Your task to perform on an android device: delete location history Image 0: 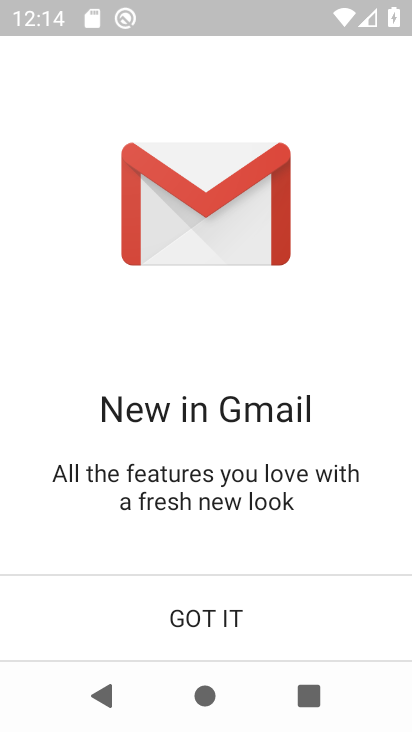
Step 0: press home button
Your task to perform on an android device: delete location history Image 1: 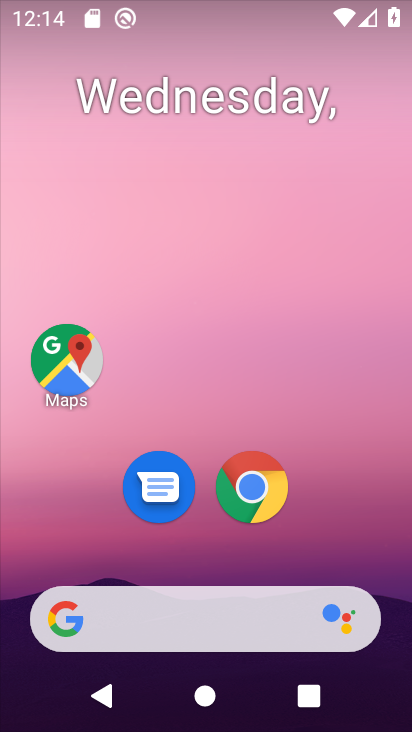
Step 1: click (67, 348)
Your task to perform on an android device: delete location history Image 2: 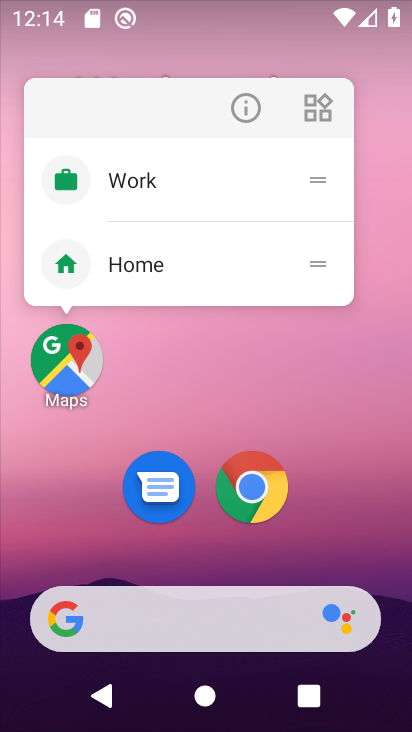
Step 2: click (75, 351)
Your task to perform on an android device: delete location history Image 3: 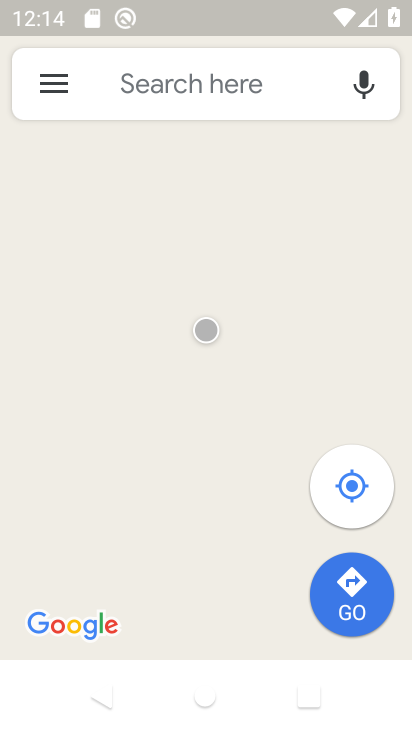
Step 3: click (36, 77)
Your task to perform on an android device: delete location history Image 4: 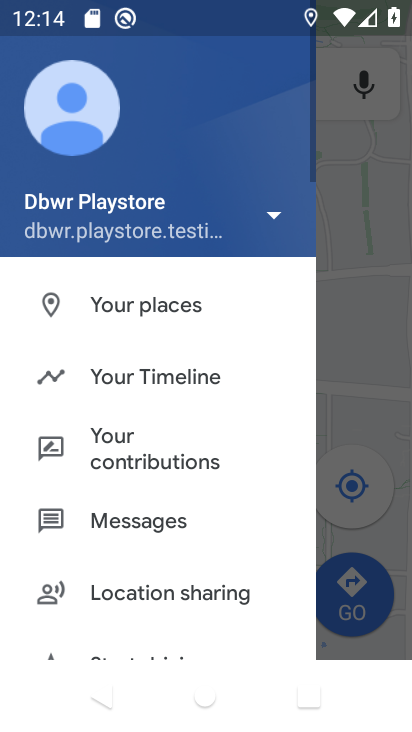
Step 4: click (172, 368)
Your task to perform on an android device: delete location history Image 5: 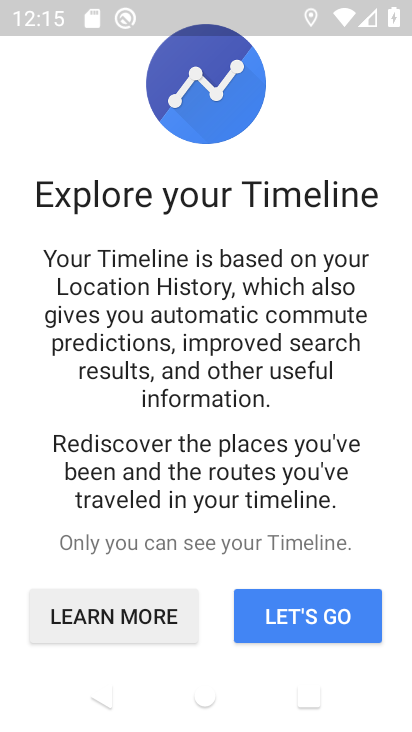
Step 5: click (303, 603)
Your task to perform on an android device: delete location history Image 6: 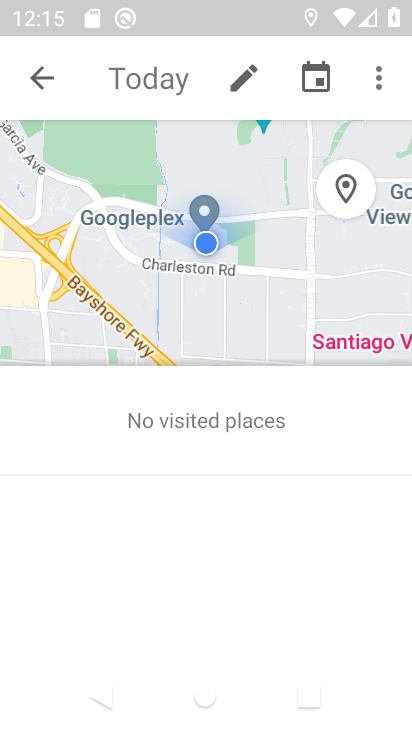
Step 6: click (379, 76)
Your task to perform on an android device: delete location history Image 7: 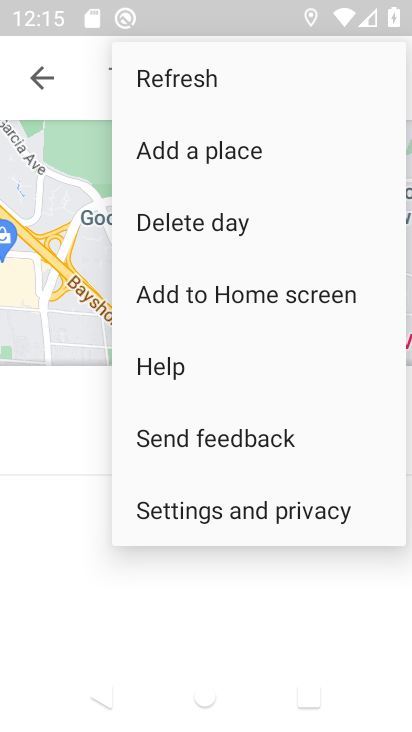
Step 7: click (293, 509)
Your task to perform on an android device: delete location history Image 8: 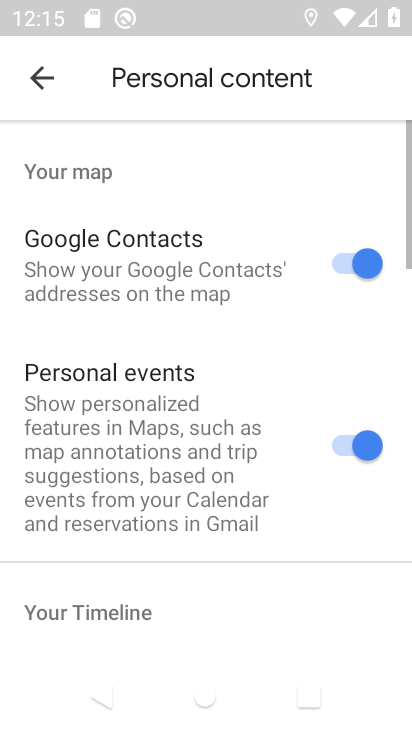
Step 8: drag from (156, 628) to (264, 6)
Your task to perform on an android device: delete location history Image 9: 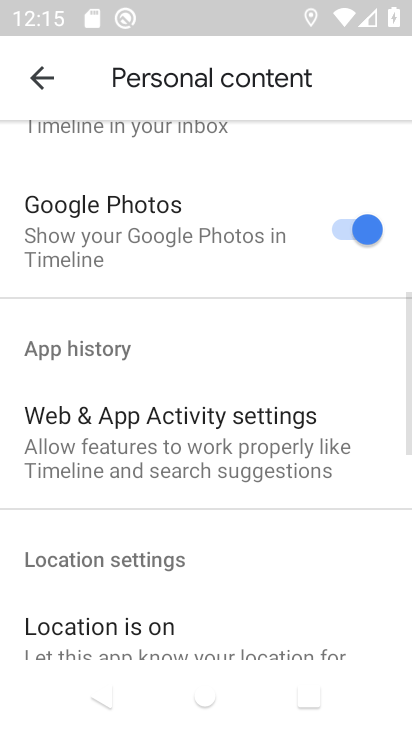
Step 9: drag from (183, 554) to (215, 84)
Your task to perform on an android device: delete location history Image 10: 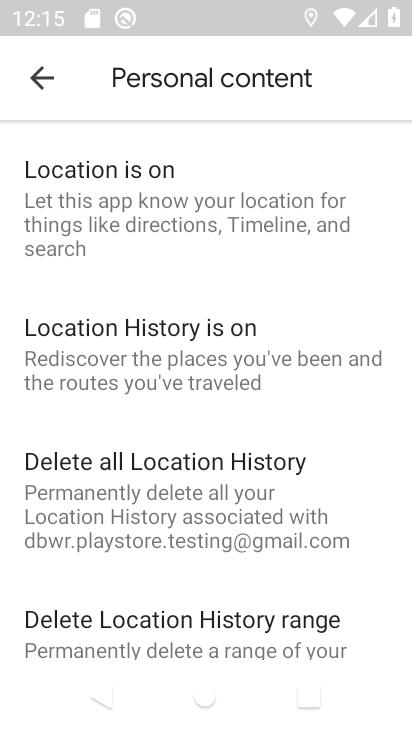
Step 10: click (118, 491)
Your task to perform on an android device: delete location history Image 11: 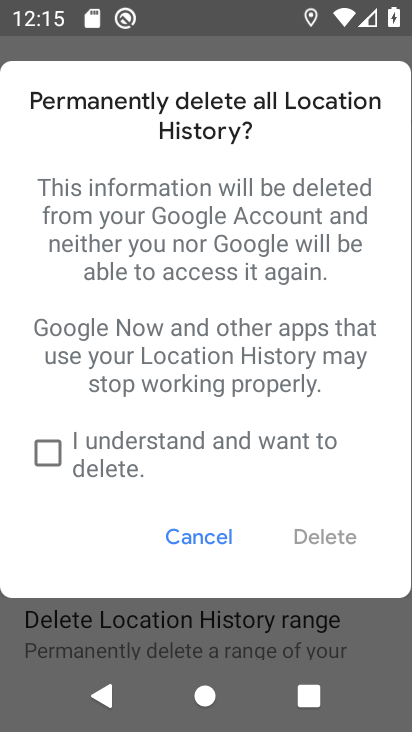
Step 11: click (49, 448)
Your task to perform on an android device: delete location history Image 12: 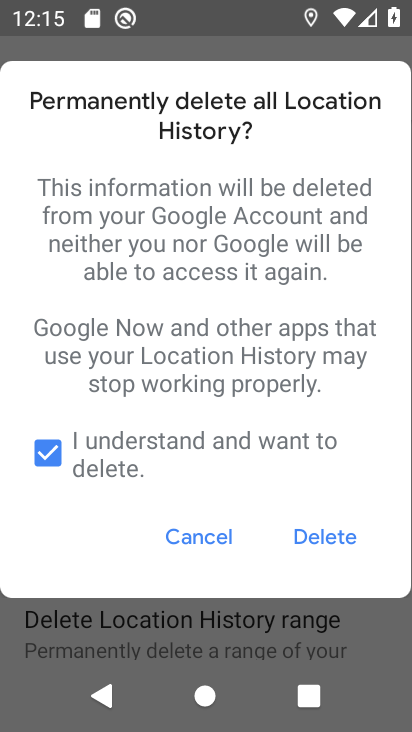
Step 12: click (330, 545)
Your task to perform on an android device: delete location history Image 13: 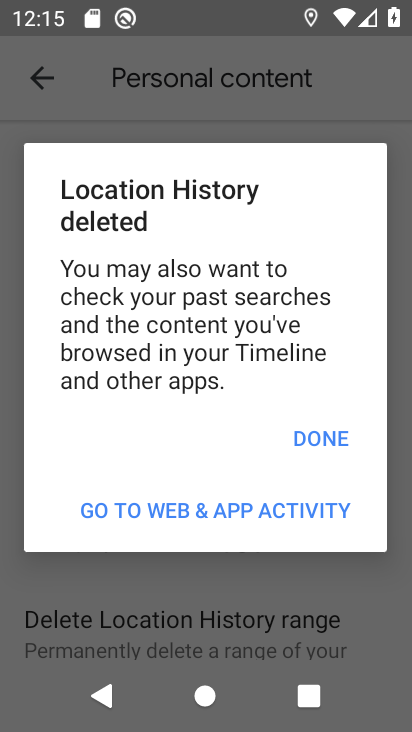
Step 13: click (303, 421)
Your task to perform on an android device: delete location history Image 14: 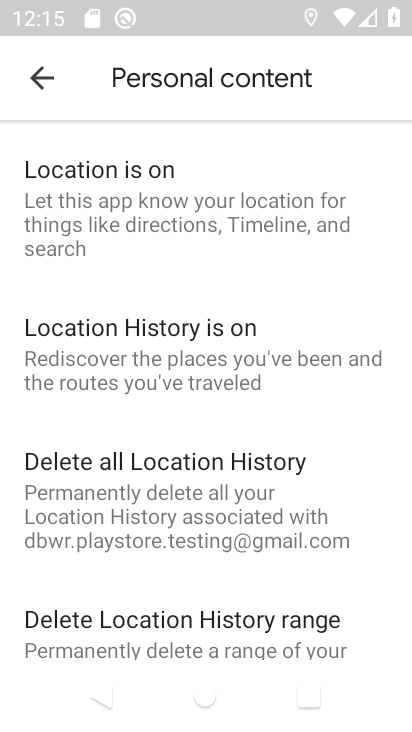
Step 14: task complete